Your task to perform on an android device: check data usage Image 0: 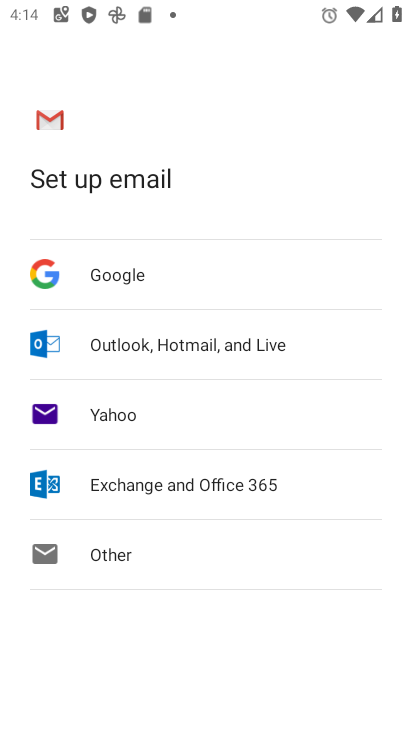
Step 0: press home button
Your task to perform on an android device: check data usage Image 1: 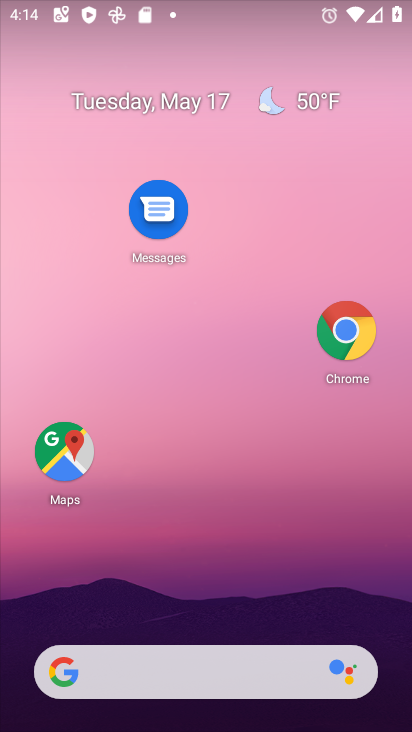
Step 1: drag from (148, 558) to (157, 146)
Your task to perform on an android device: check data usage Image 2: 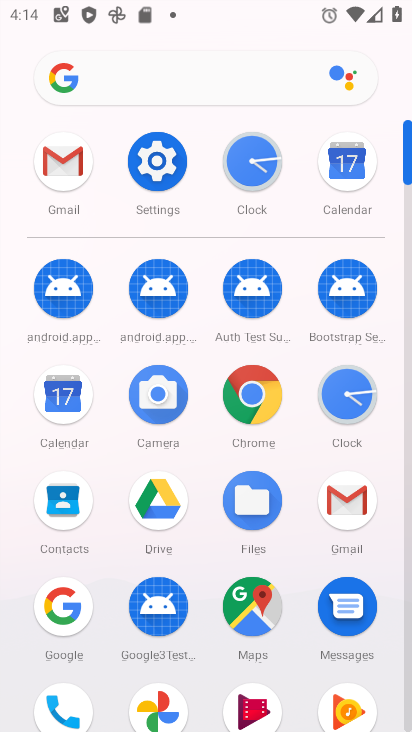
Step 2: click (161, 190)
Your task to perform on an android device: check data usage Image 3: 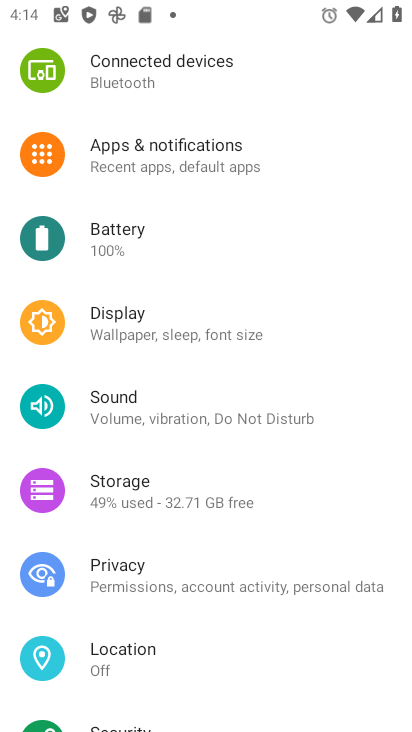
Step 3: drag from (161, 190) to (176, 416)
Your task to perform on an android device: check data usage Image 4: 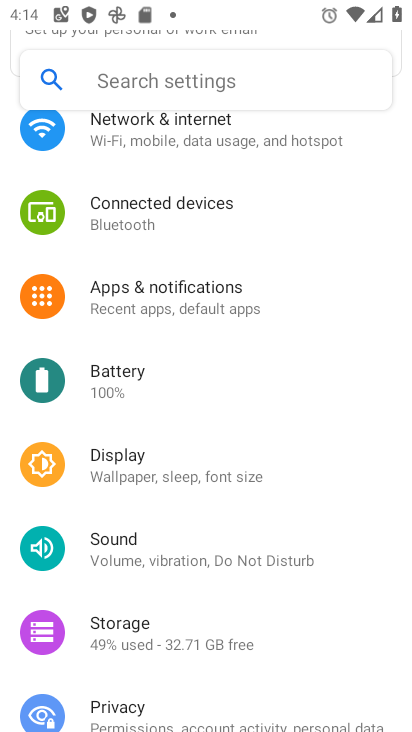
Step 4: drag from (136, 187) to (150, 383)
Your task to perform on an android device: check data usage Image 5: 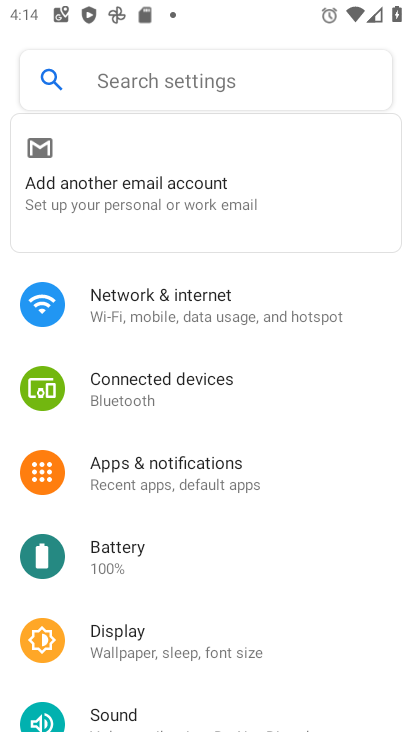
Step 5: click (150, 294)
Your task to perform on an android device: check data usage Image 6: 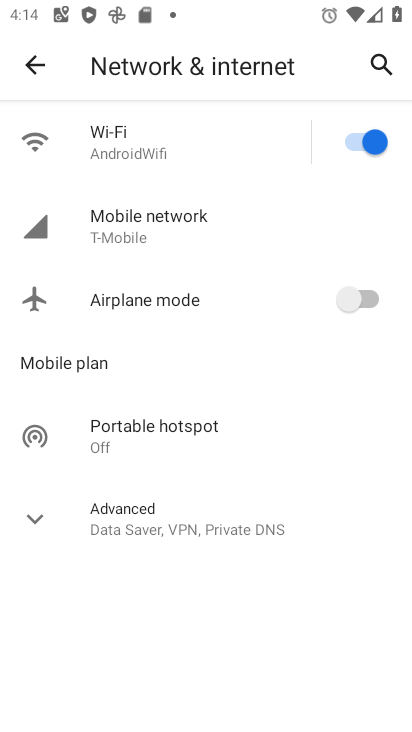
Step 6: click (150, 241)
Your task to perform on an android device: check data usage Image 7: 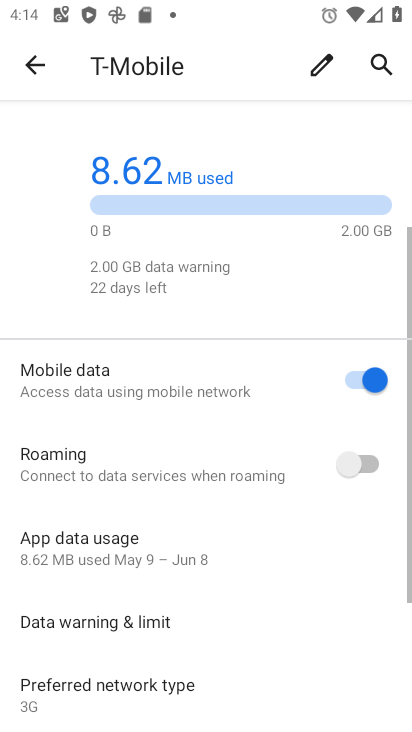
Step 7: task complete